Your task to perform on an android device: See recent photos Image 0: 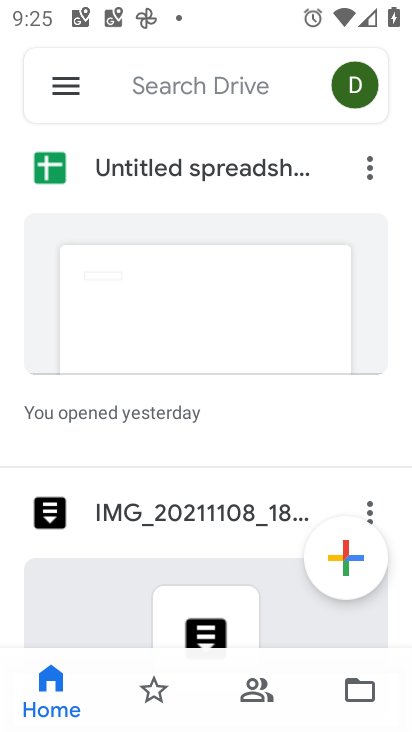
Step 0: press home button
Your task to perform on an android device: See recent photos Image 1: 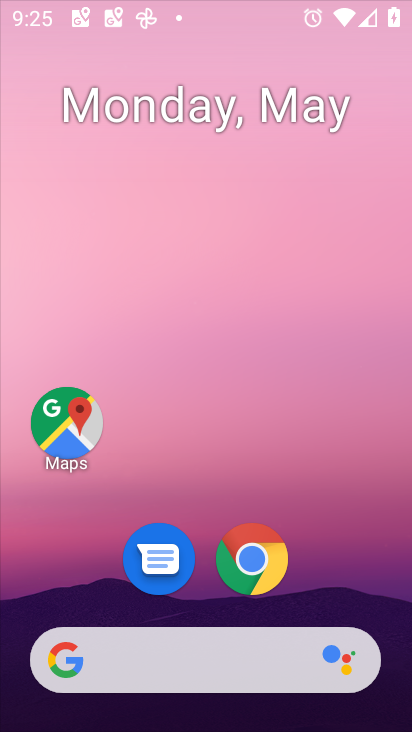
Step 1: drag from (403, 644) to (274, 91)
Your task to perform on an android device: See recent photos Image 2: 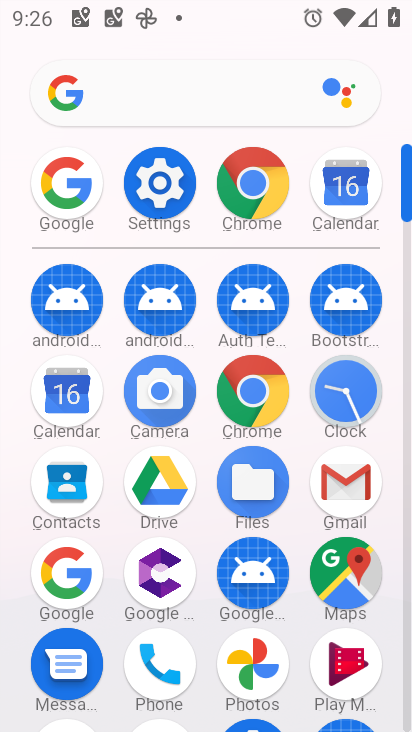
Step 2: click (249, 647)
Your task to perform on an android device: See recent photos Image 3: 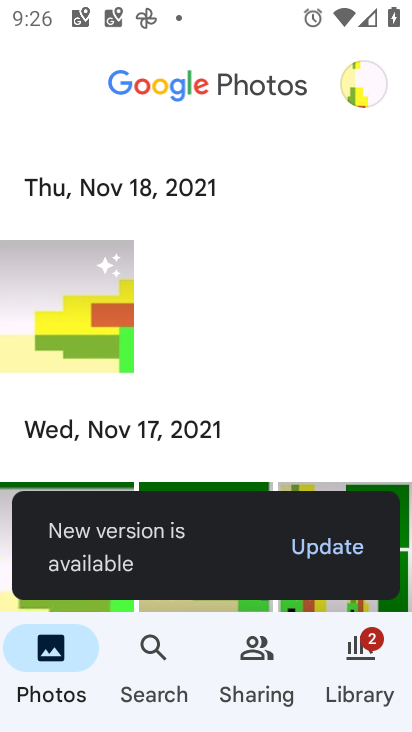
Step 3: click (48, 291)
Your task to perform on an android device: See recent photos Image 4: 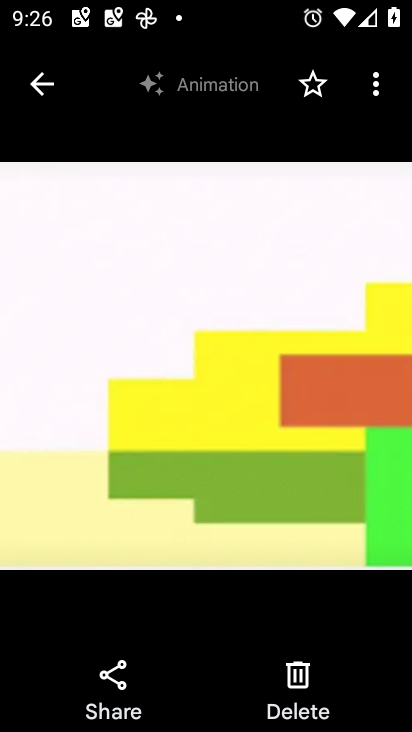
Step 4: task complete